Your task to perform on an android device: turn on bluetooth scan Image 0: 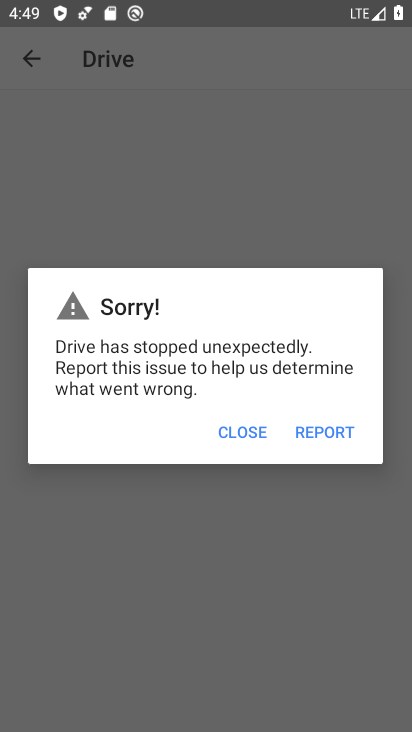
Step 0: press home button
Your task to perform on an android device: turn on bluetooth scan Image 1: 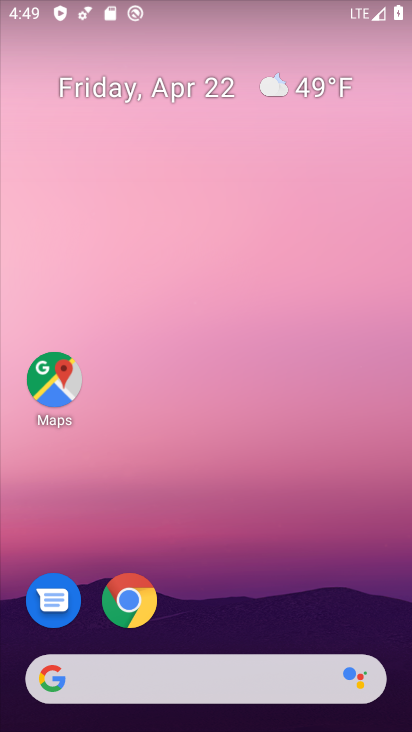
Step 1: drag from (246, 579) to (251, 32)
Your task to perform on an android device: turn on bluetooth scan Image 2: 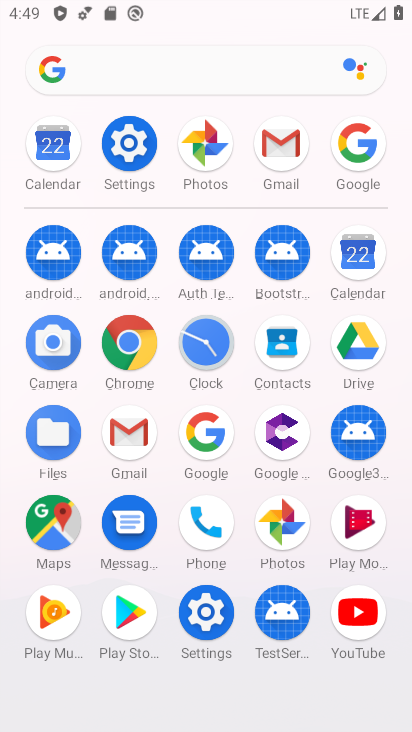
Step 2: click (127, 139)
Your task to perform on an android device: turn on bluetooth scan Image 3: 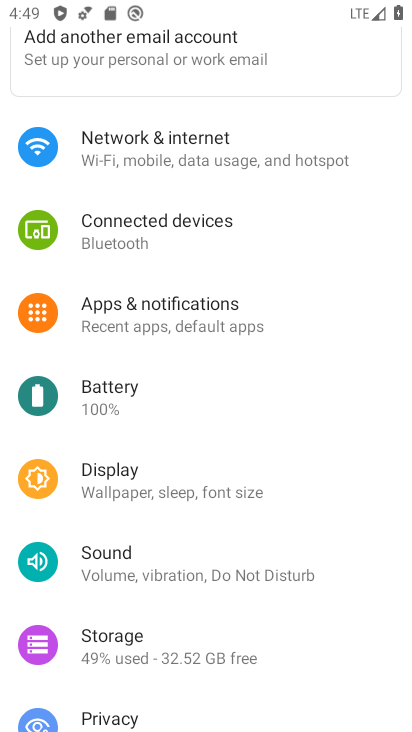
Step 3: drag from (153, 379) to (162, 289)
Your task to perform on an android device: turn on bluetooth scan Image 4: 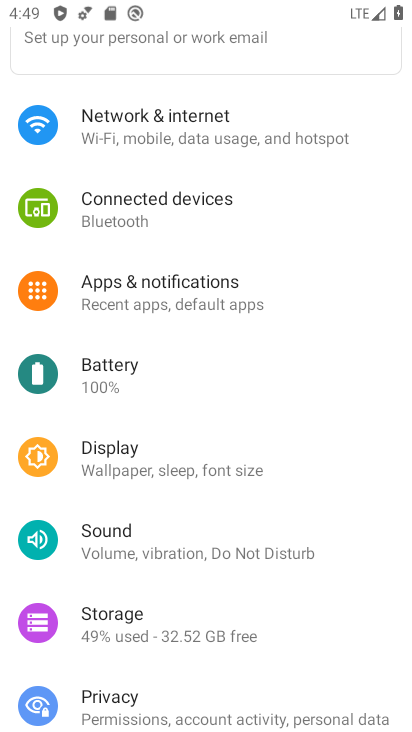
Step 4: drag from (160, 395) to (170, 302)
Your task to perform on an android device: turn on bluetooth scan Image 5: 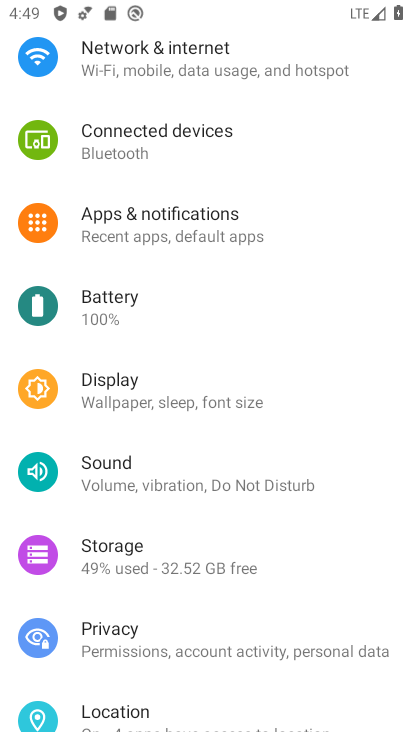
Step 5: drag from (152, 432) to (215, 322)
Your task to perform on an android device: turn on bluetooth scan Image 6: 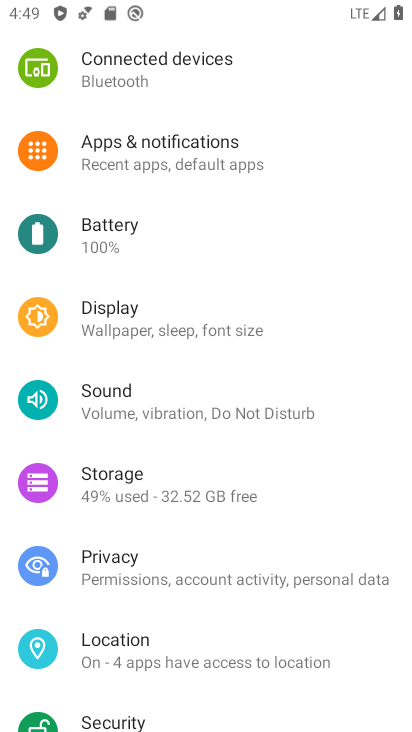
Step 6: drag from (150, 452) to (217, 324)
Your task to perform on an android device: turn on bluetooth scan Image 7: 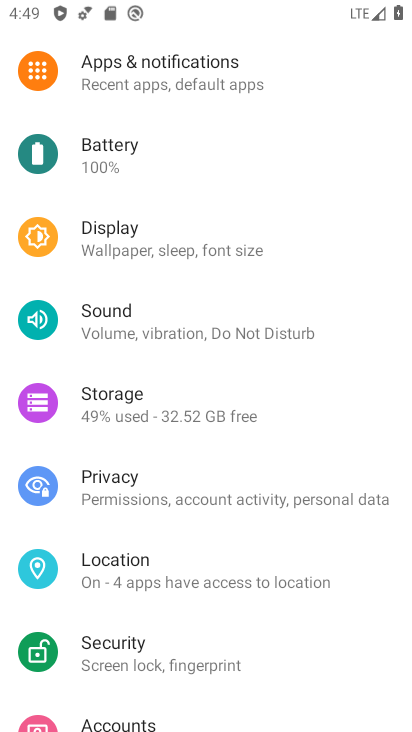
Step 7: click (116, 559)
Your task to perform on an android device: turn on bluetooth scan Image 8: 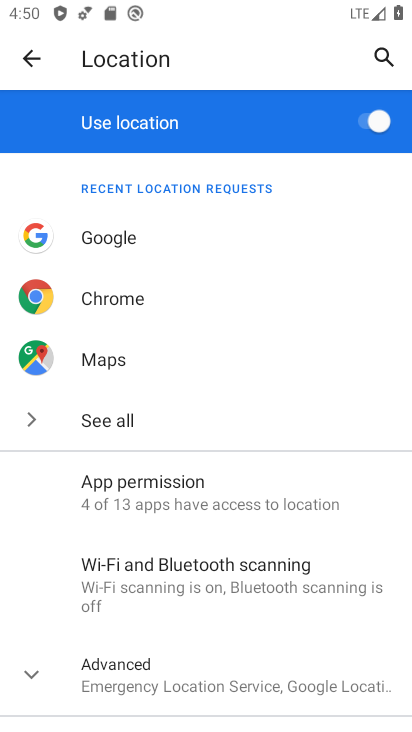
Step 8: click (144, 570)
Your task to perform on an android device: turn on bluetooth scan Image 9: 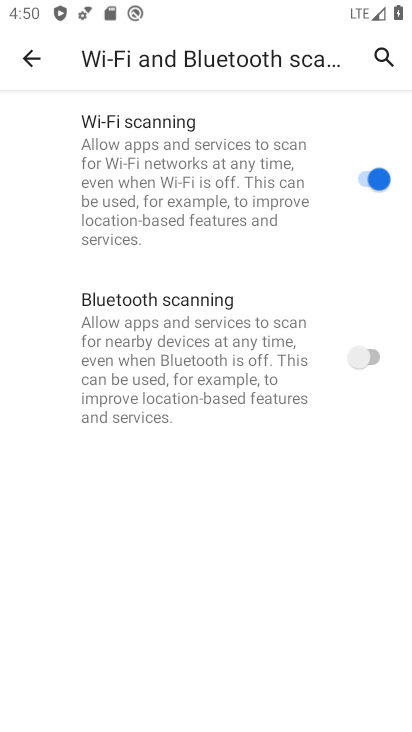
Step 9: click (357, 355)
Your task to perform on an android device: turn on bluetooth scan Image 10: 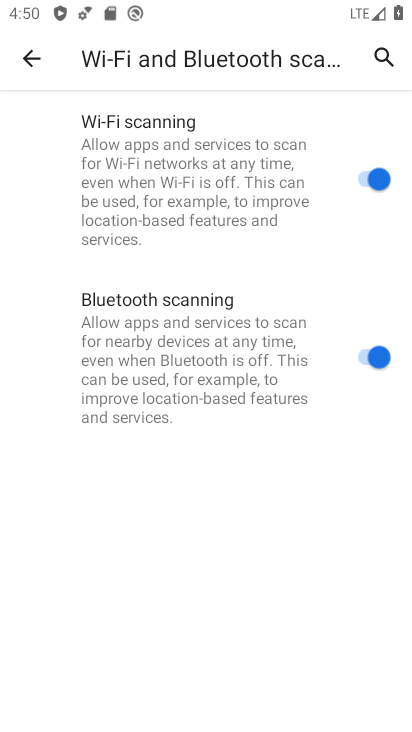
Step 10: task complete